Your task to perform on an android device: toggle sleep mode Image 0: 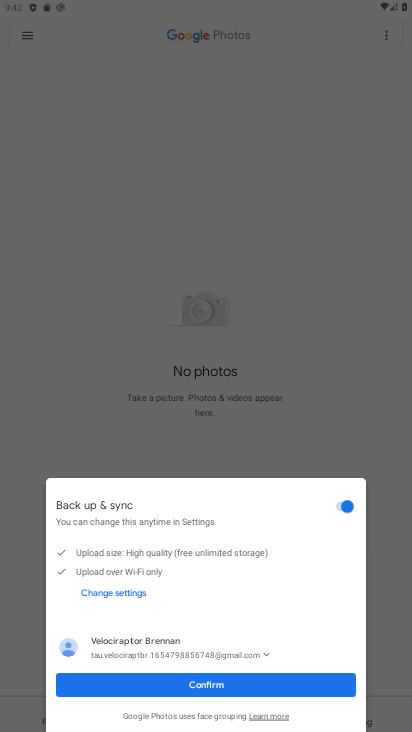
Step 0: click (260, 381)
Your task to perform on an android device: toggle sleep mode Image 1: 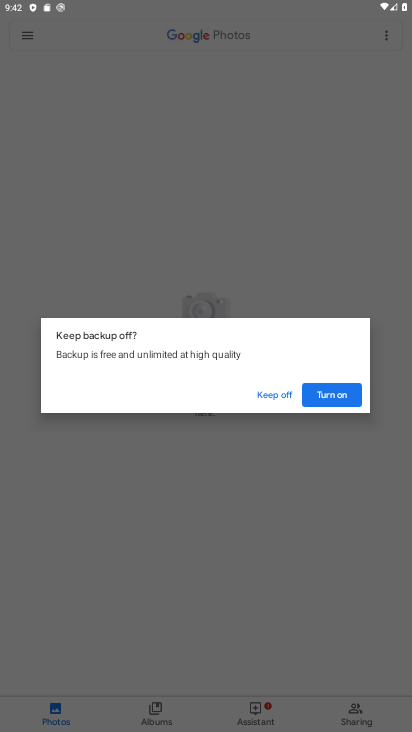
Step 1: press home button
Your task to perform on an android device: toggle sleep mode Image 2: 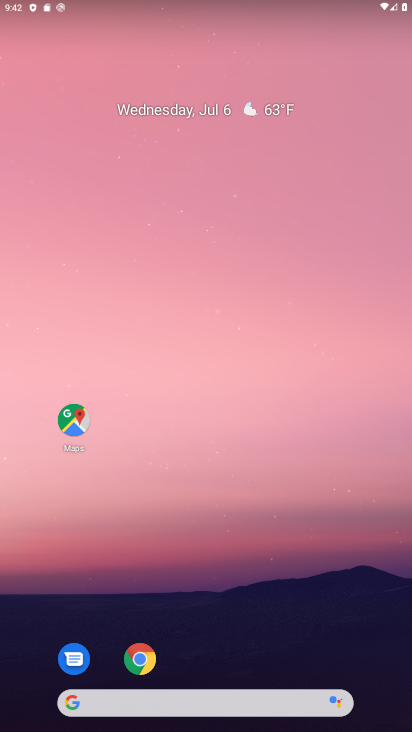
Step 2: drag from (187, 615) to (248, 289)
Your task to perform on an android device: toggle sleep mode Image 3: 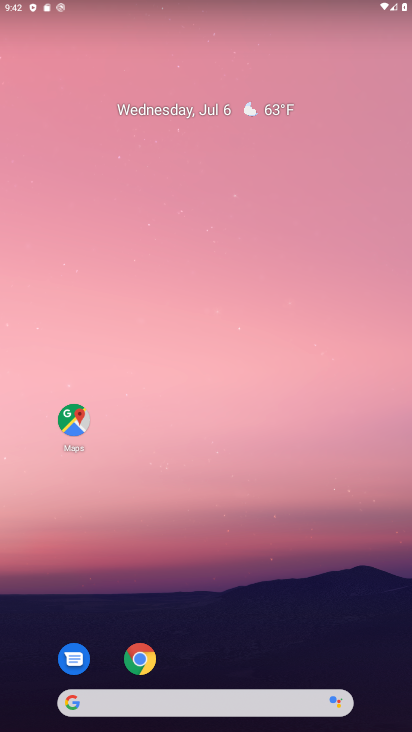
Step 3: drag from (234, 342) to (411, 62)
Your task to perform on an android device: toggle sleep mode Image 4: 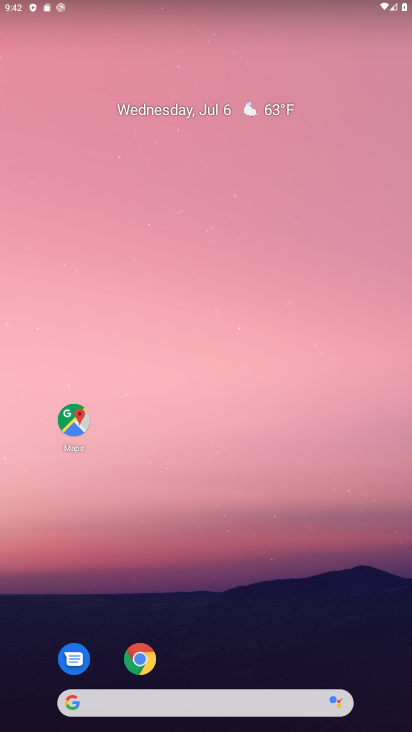
Step 4: drag from (222, 585) to (332, 277)
Your task to perform on an android device: toggle sleep mode Image 5: 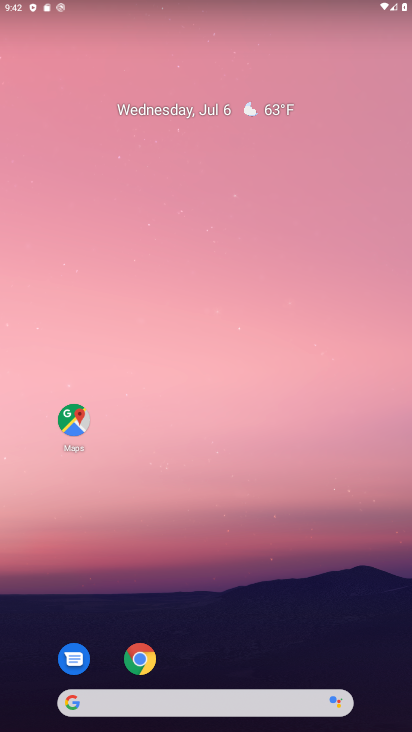
Step 5: drag from (218, 664) to (209, 430)
Your task to perform on an android device: toggle sleep mode Image 6: 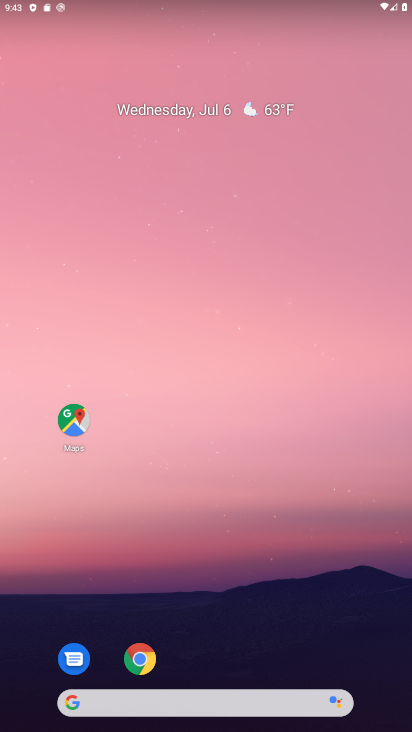
Step 6: drag from (78, 519) to (283, 82)
Your task to perform on an android device: toggle sleep mode Image 7: 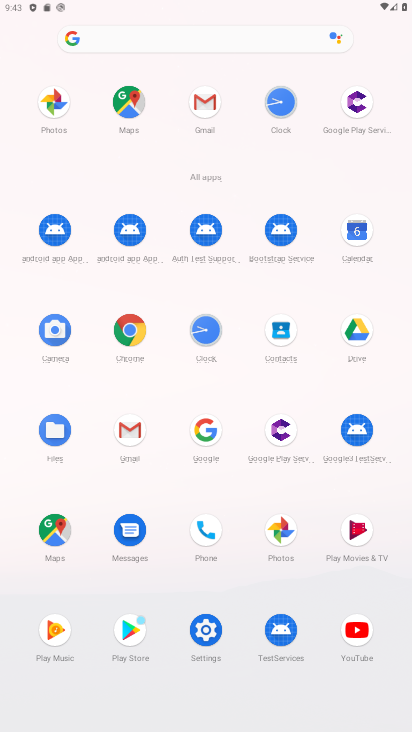
Step 7: click (205, 624)
Your task to perform on an android device: toggle sleep mode Image 8: 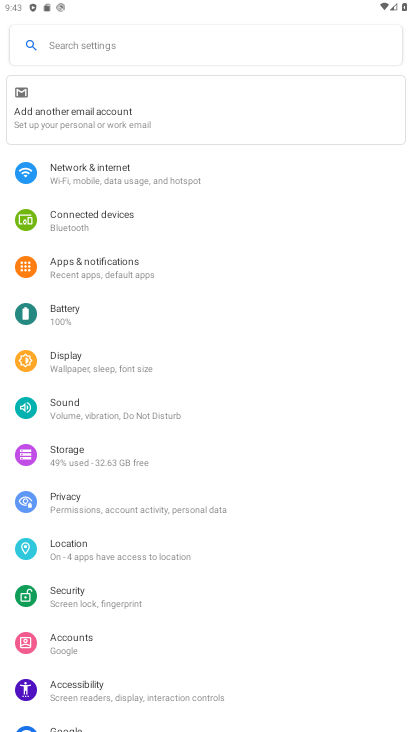
Step 8: click (133, 353)
Your task to perform on an android device: toggle sleep mode Image 9: 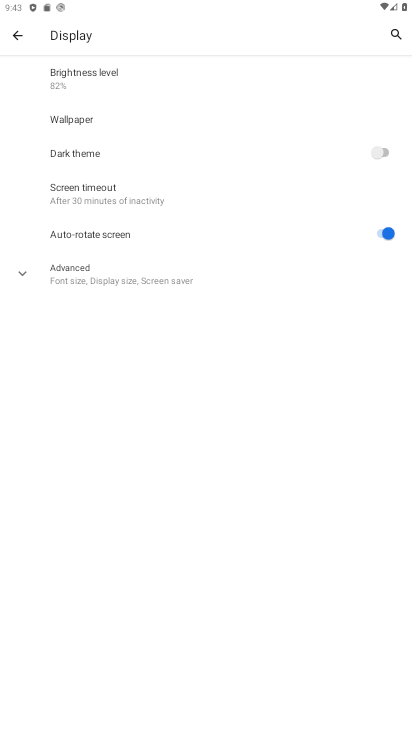
Step 9: click (88, 195)
Your task to perform on an android device: toggle sleep mode Image 10: 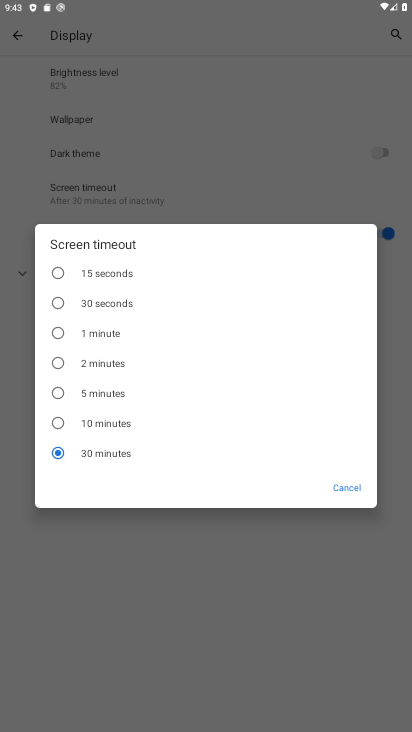
Step 10: task complete